Your task to perform on an android device: Open network settings Image 0: 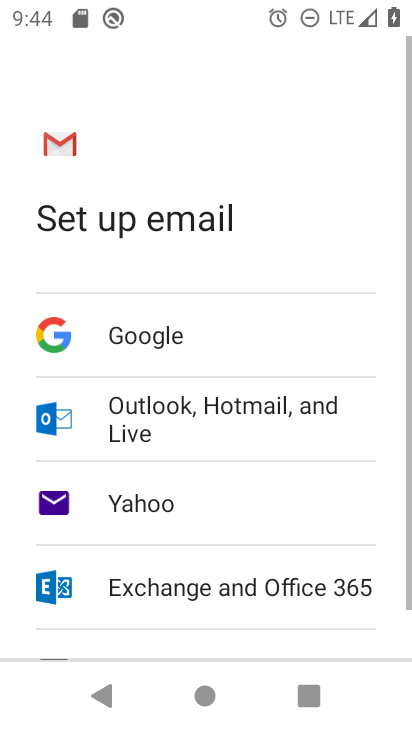
Step 0: press home button
Your task to perform on an android device: Open network settings Image 1: 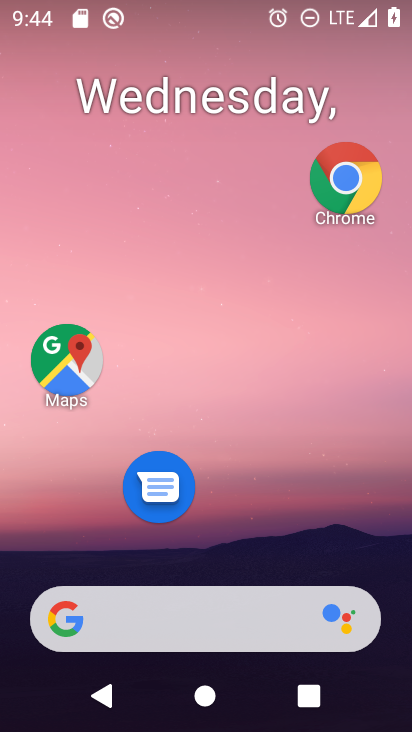
Step 1: drag from (233, 611) to (302, 182)
Your task to perform on an android device: Open network settings Image 2: 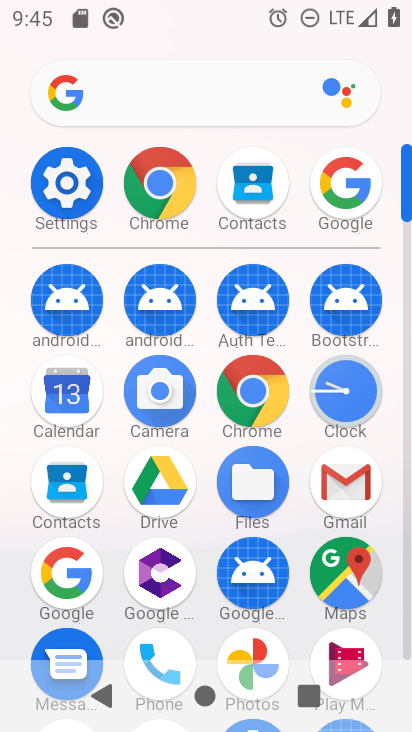
Step 2: click (51, 188)
Your task to perform on an android device: Open network settings Image 3: 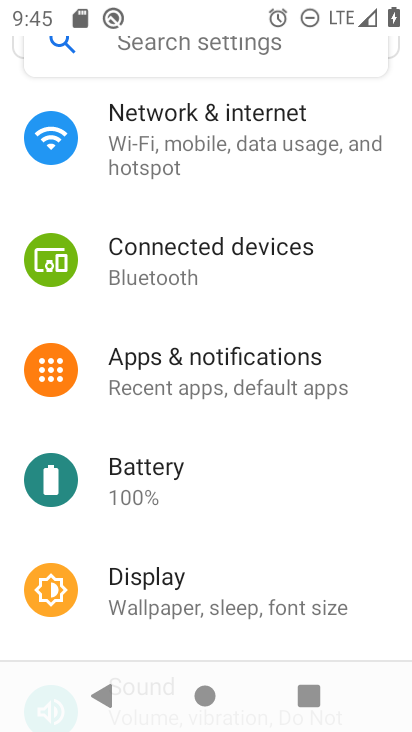
Step 3: drag from (304, 246) to (296, 706)
Your task to perform on an android device: Open network settings Image 4: 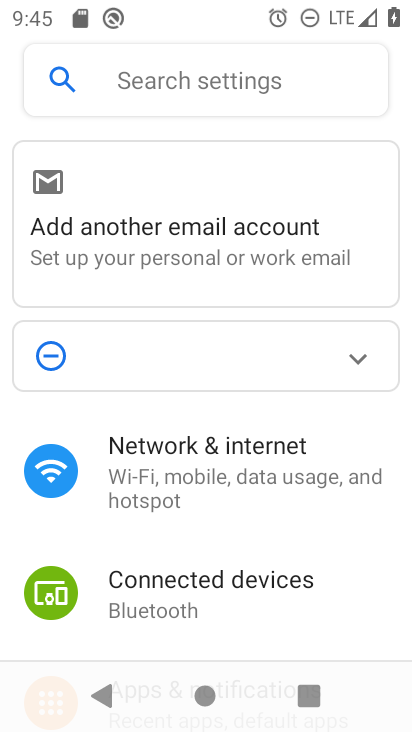
Step 4: click (220, 489)
Your task to perform on an android device: Open network settings Image 5: 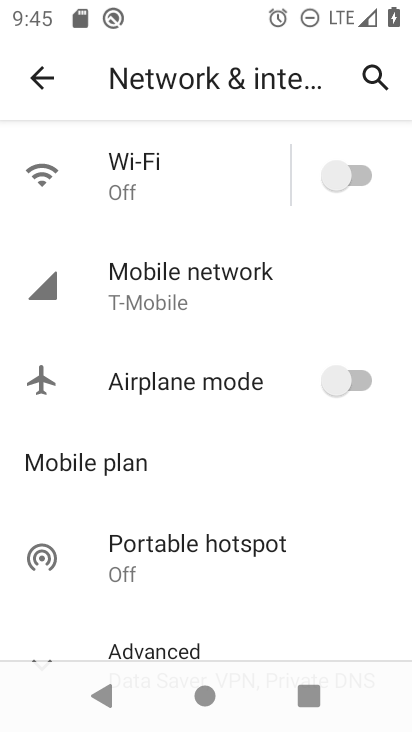
Step 5: click (172, 292)
Your task to perform on an android device: Open network settings Image 6: 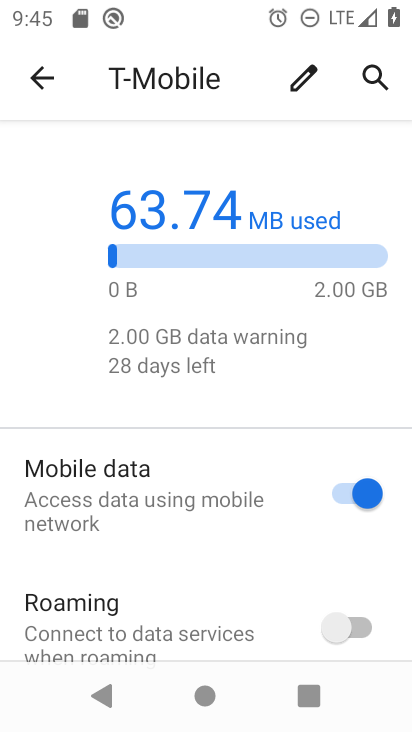
Step 6: task complete